Your task to perform on an android device: snooze an email in the gmail app Image 0: 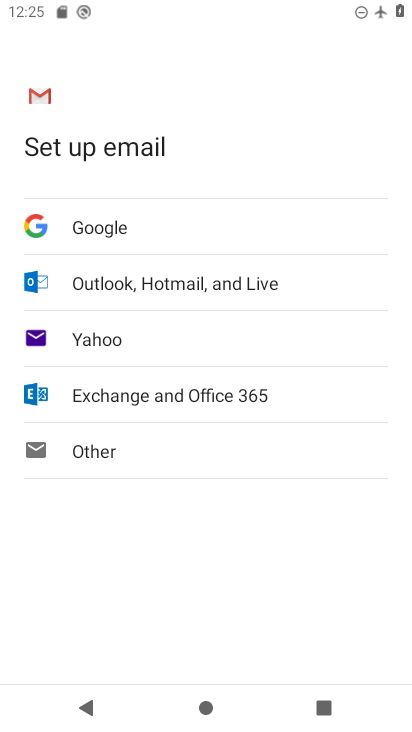
Step 0: press home button
Your task to perform on an android device: snooze an email in the gmail app Image 1: 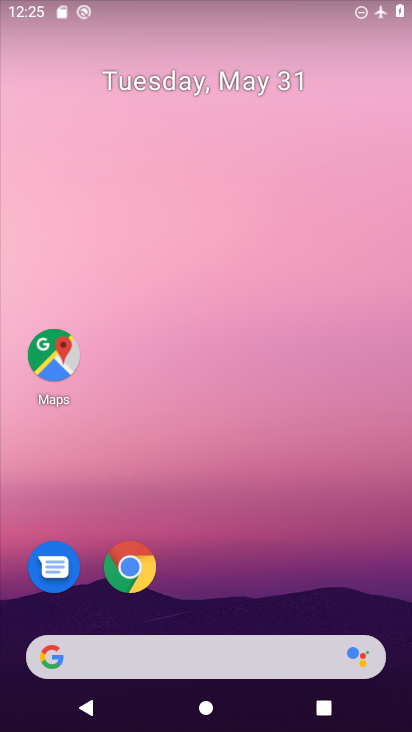
Step 1: drag from (246, 630) to (211, 222)
Your task to perform on an android device: snooze an email in the gmail app Image 2: 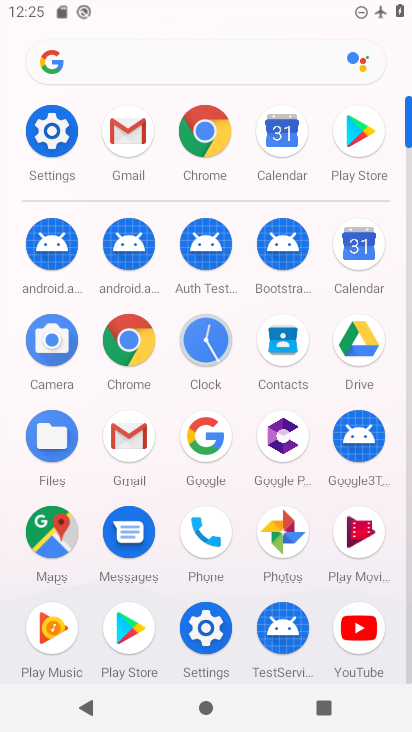
Step 2: click (118, 127)
Your task to perform on an android device: snooze an email in the gmail app Image 3: 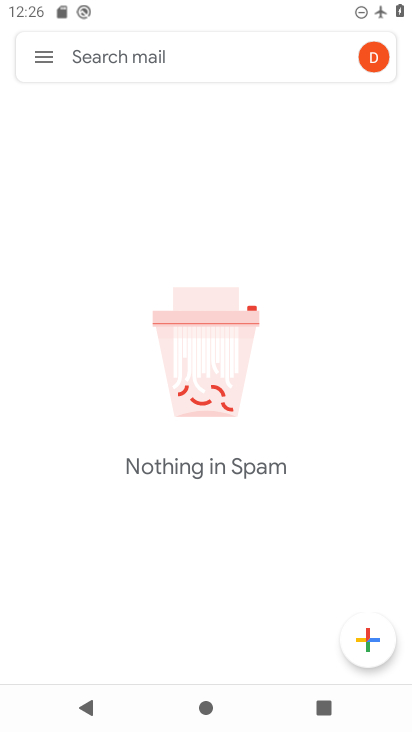
Step 3: task complete